Your task to perform on an android device: turn on wifi Image 0: 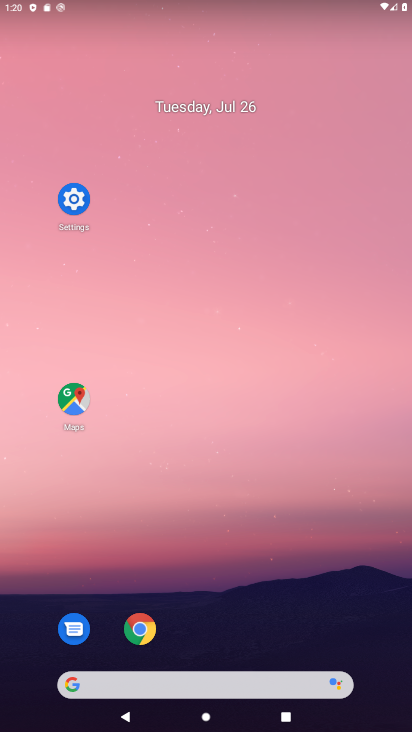
Step 0: click (83, 193)
Your task to perform on an android device: turn on wifi Image 1: 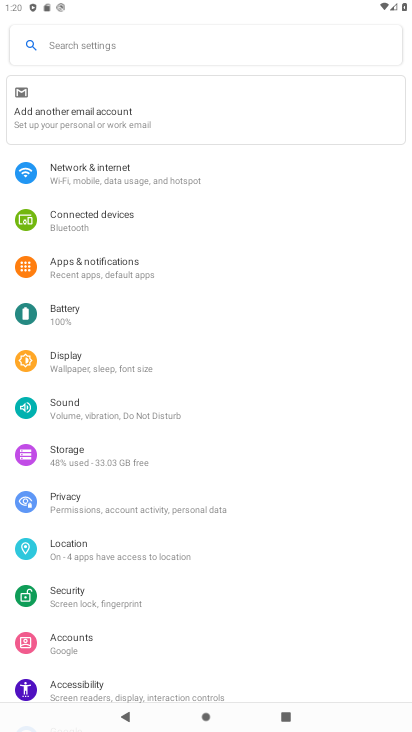
Step 1: click (135, 166)
Your task to perform on an android device: turn on wifi Image 2: 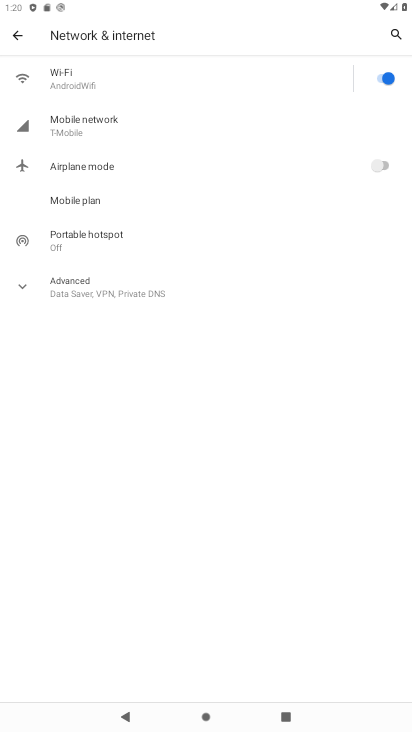
Step 2: task complete